Your task to perform on an android device: Go to ESPN.com Image 0: 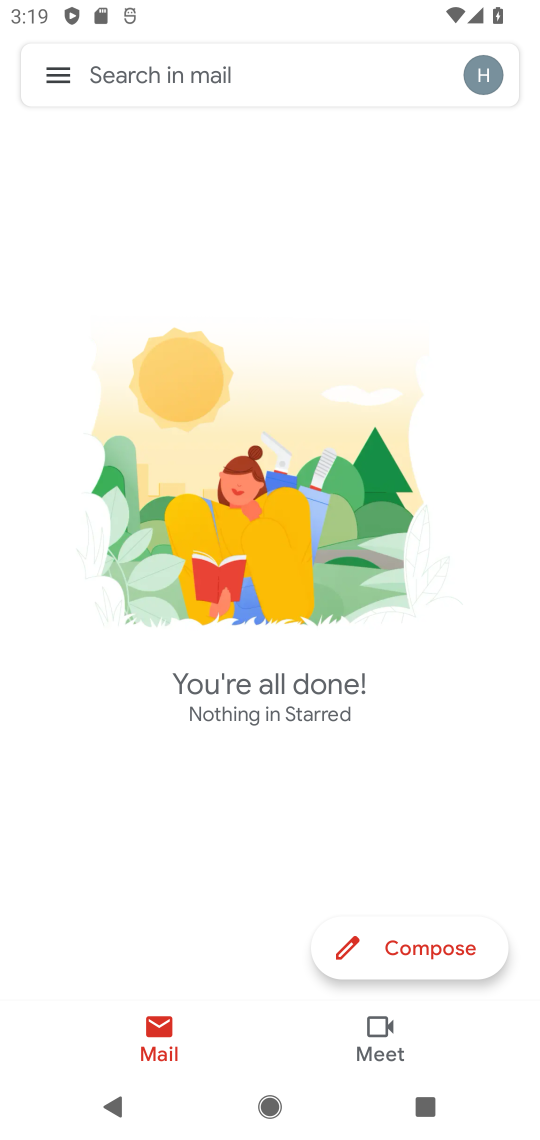
Step 0: press home button
Your task to perform on an android device: Go to ESPN.com Image 1: 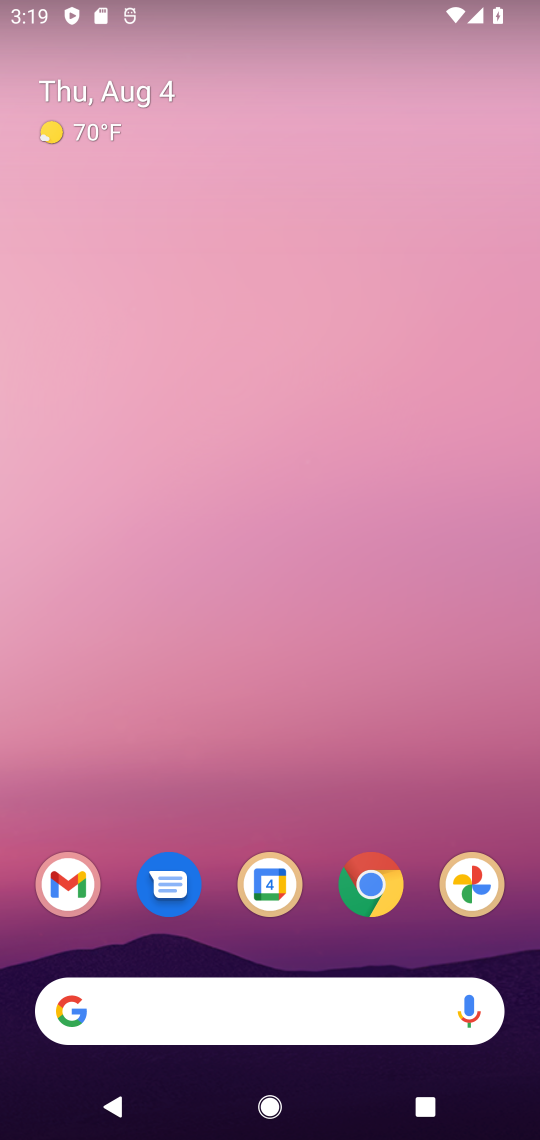
Step 1: drag from (261, 897) to (310, 71)
Your task to perform on an android device: Go to ESPN.com Image 2: 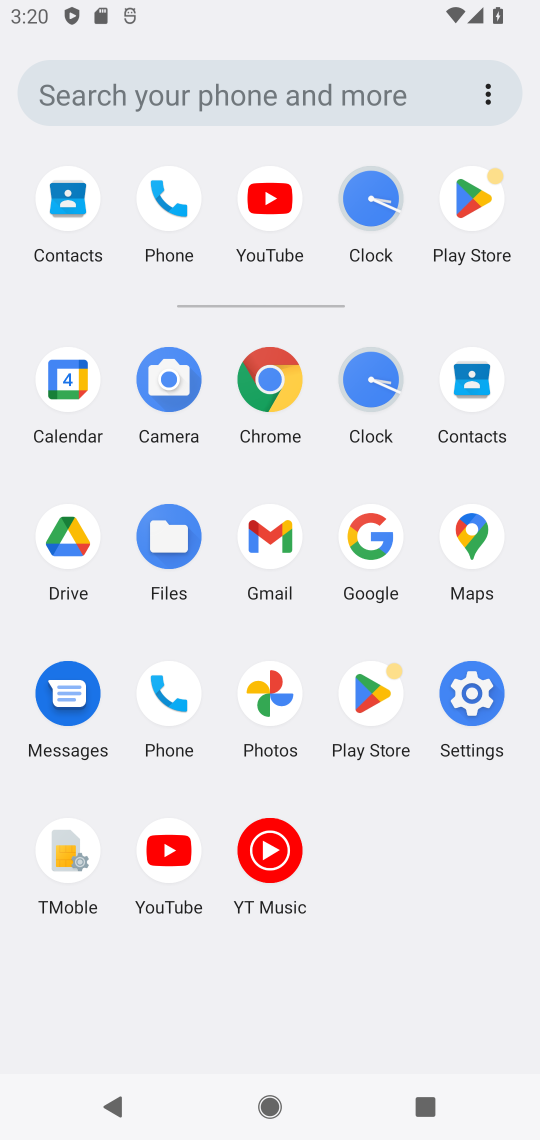
Step 2: click (269, 400)
Your task to perform on an android device: Go to ESPN.com Image 3: 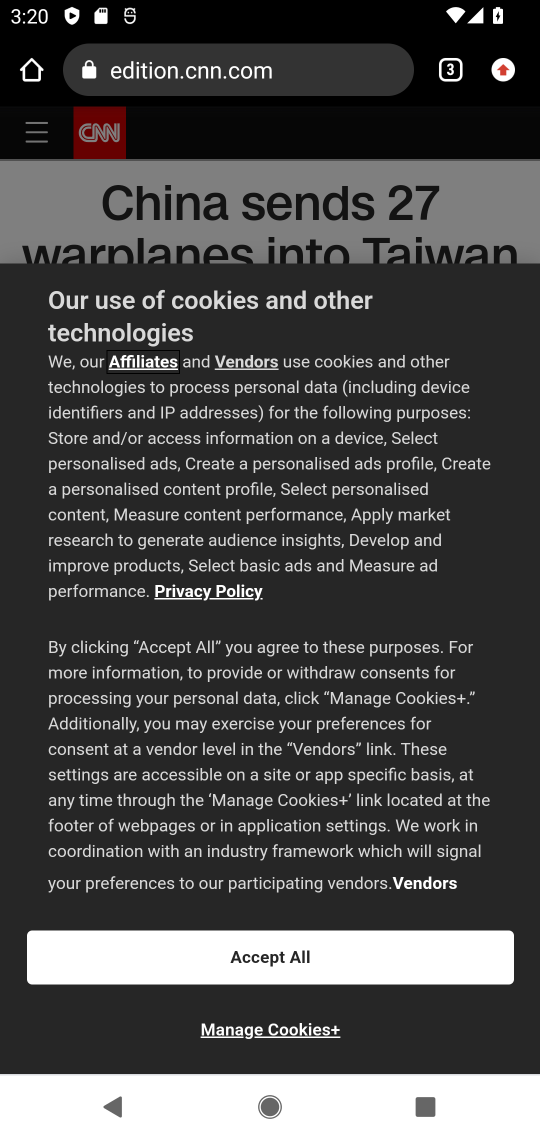
Step 3: click (504, 55)
Your task to perform on an android device: Go to ESPN.com Image 4: 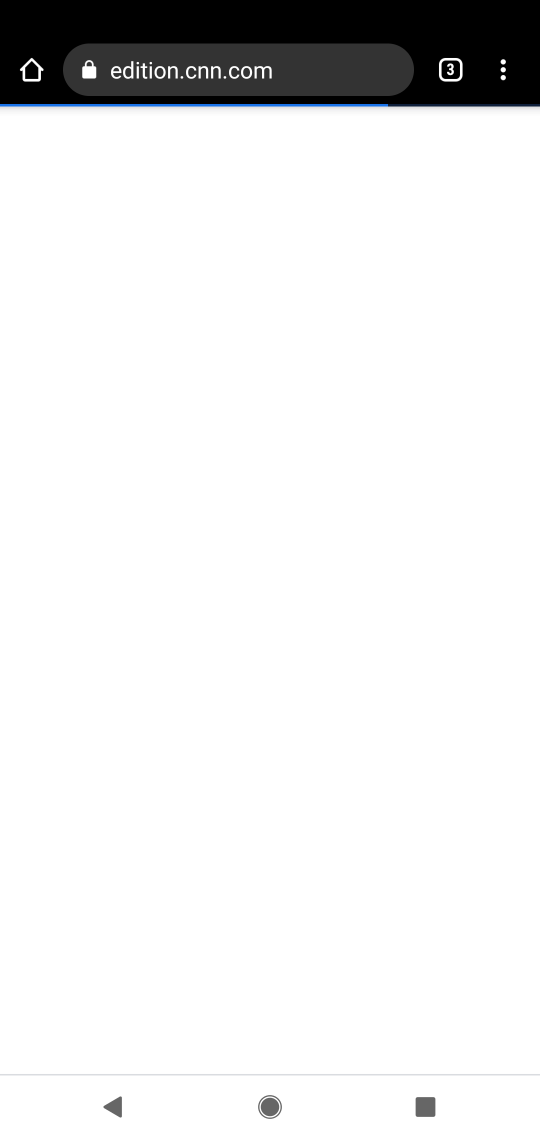
Step 4: click (496, 69)
Your task to perform on an android device: Go to ESPN.com Image 5: 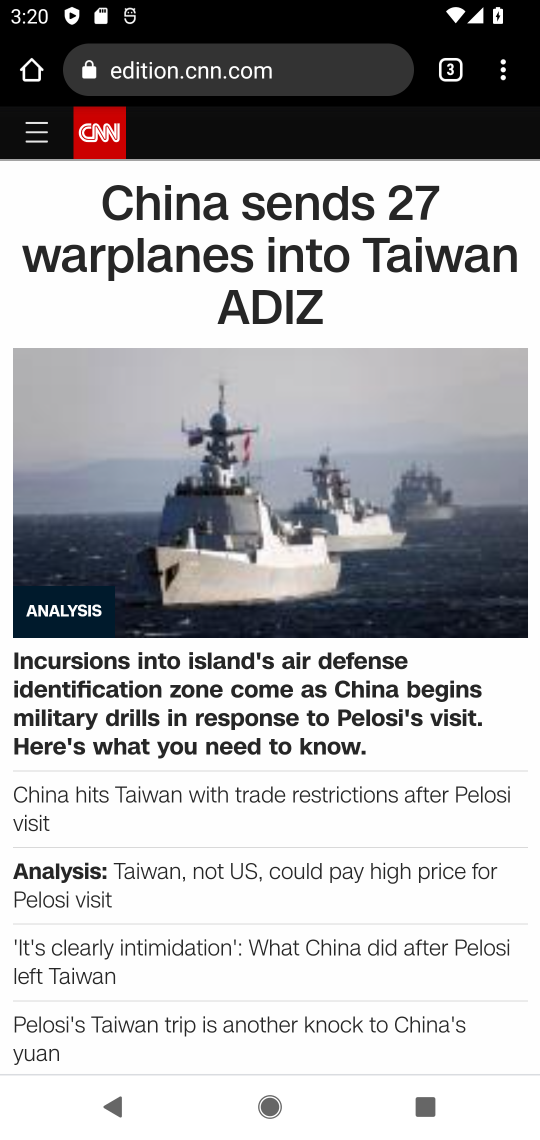
Step 5: click (522, 77)
Your task to perform on an android device: Go to ESPN.com Image 6: 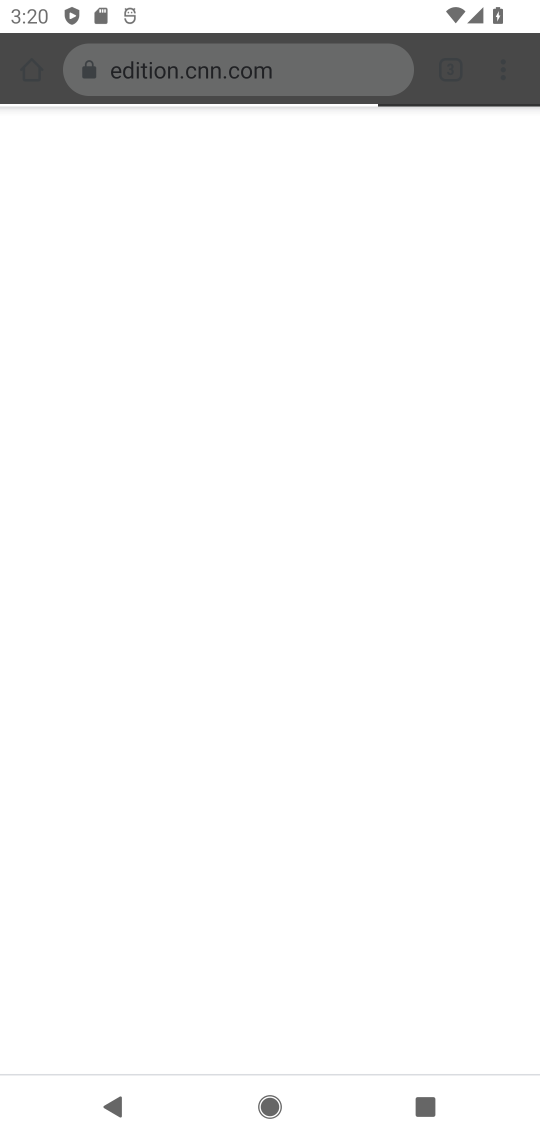
Step 6: click (506, 64)
Your task to perform on an android device: Go to ESPN.com Image 7: 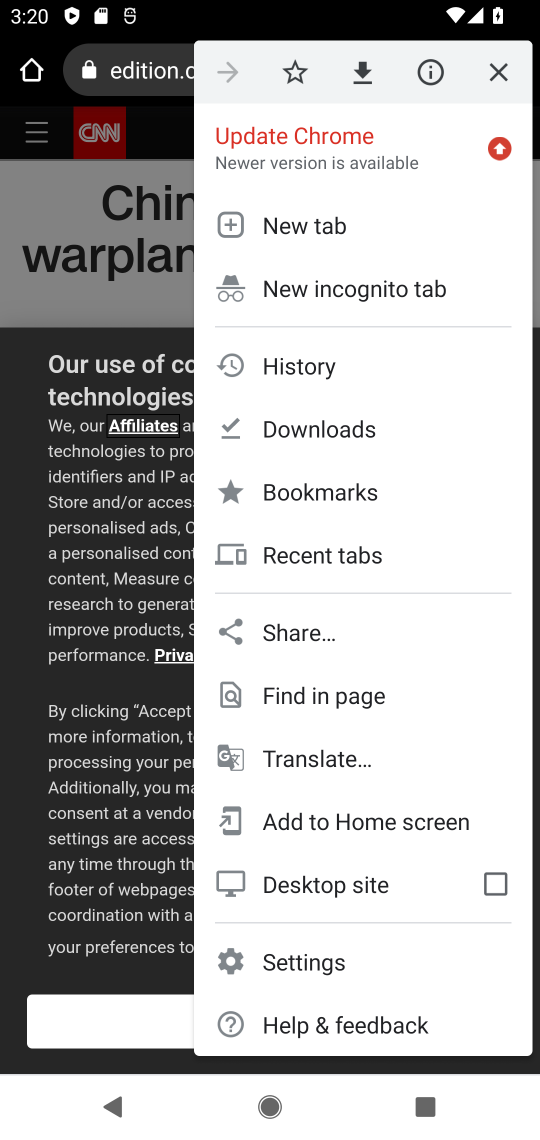
Step 7: click (259, 214)
Your task to perform on an android device: Go to ESPN.com Image 8: 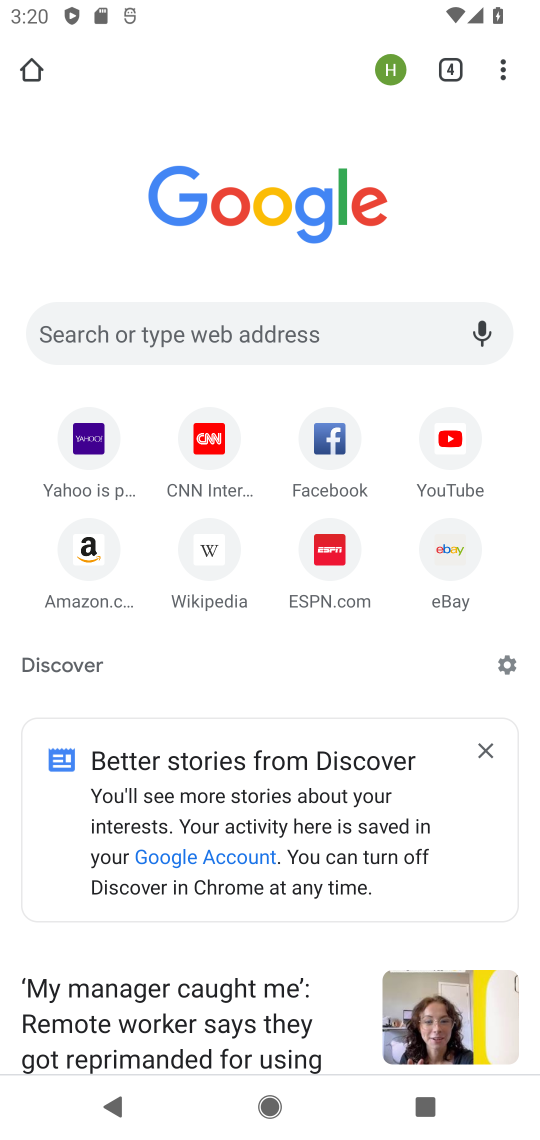
Step 8: click (325, 529)
Your task to perform on an android device: Go to ESPN.com Image 9: 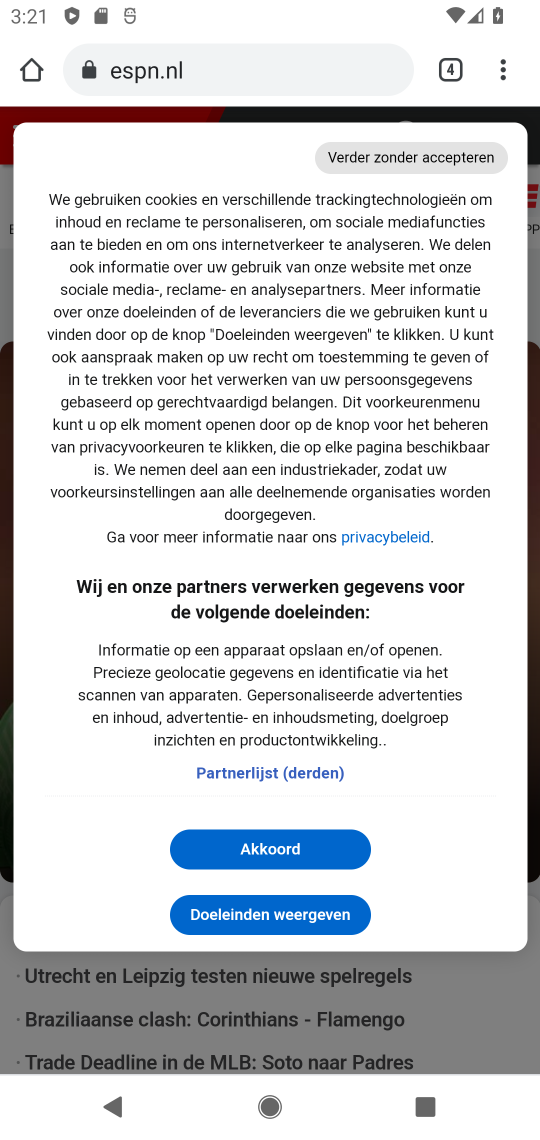
Step 9: task complete